Your task to perform on an android device: Open ESPN.com Image 0: 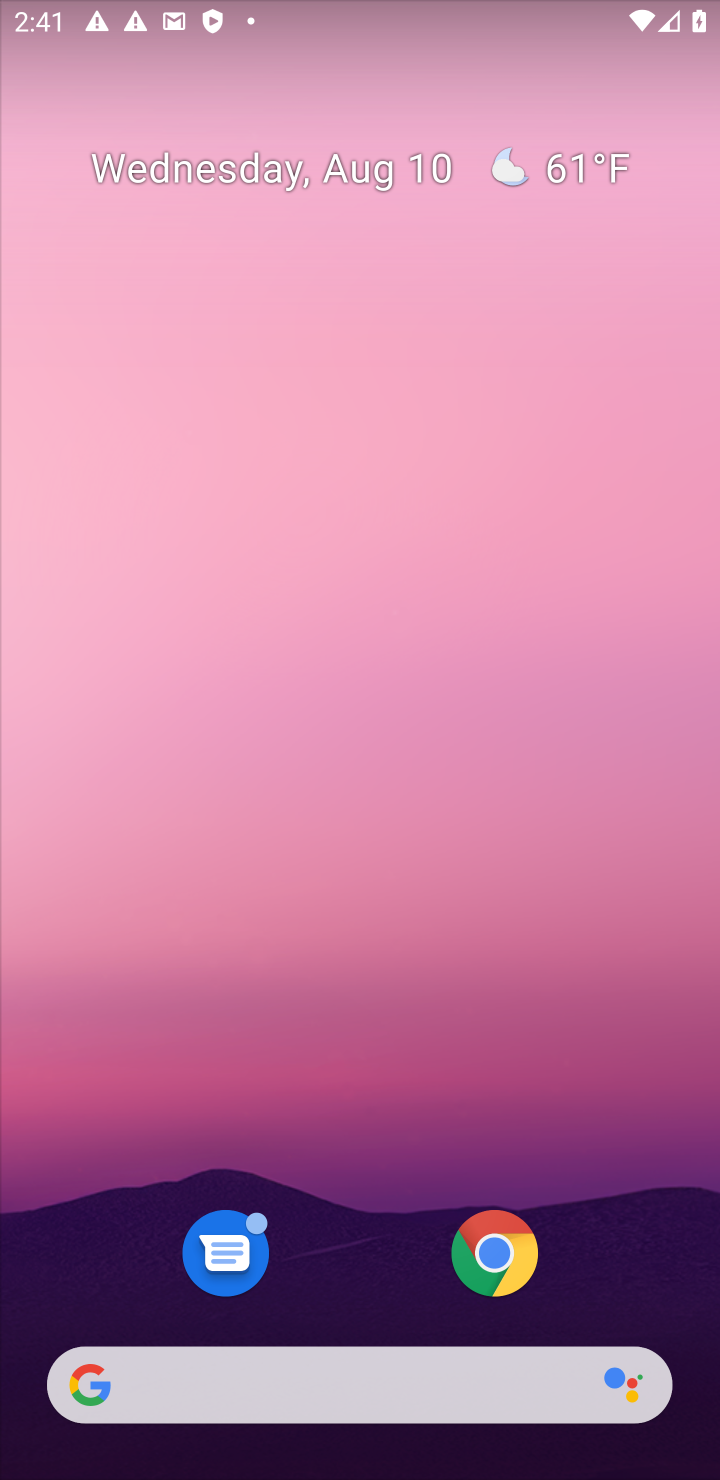
Step 0: click (348, 1394)
Your task to perform on an android device: Open ESPN.com Image 1: 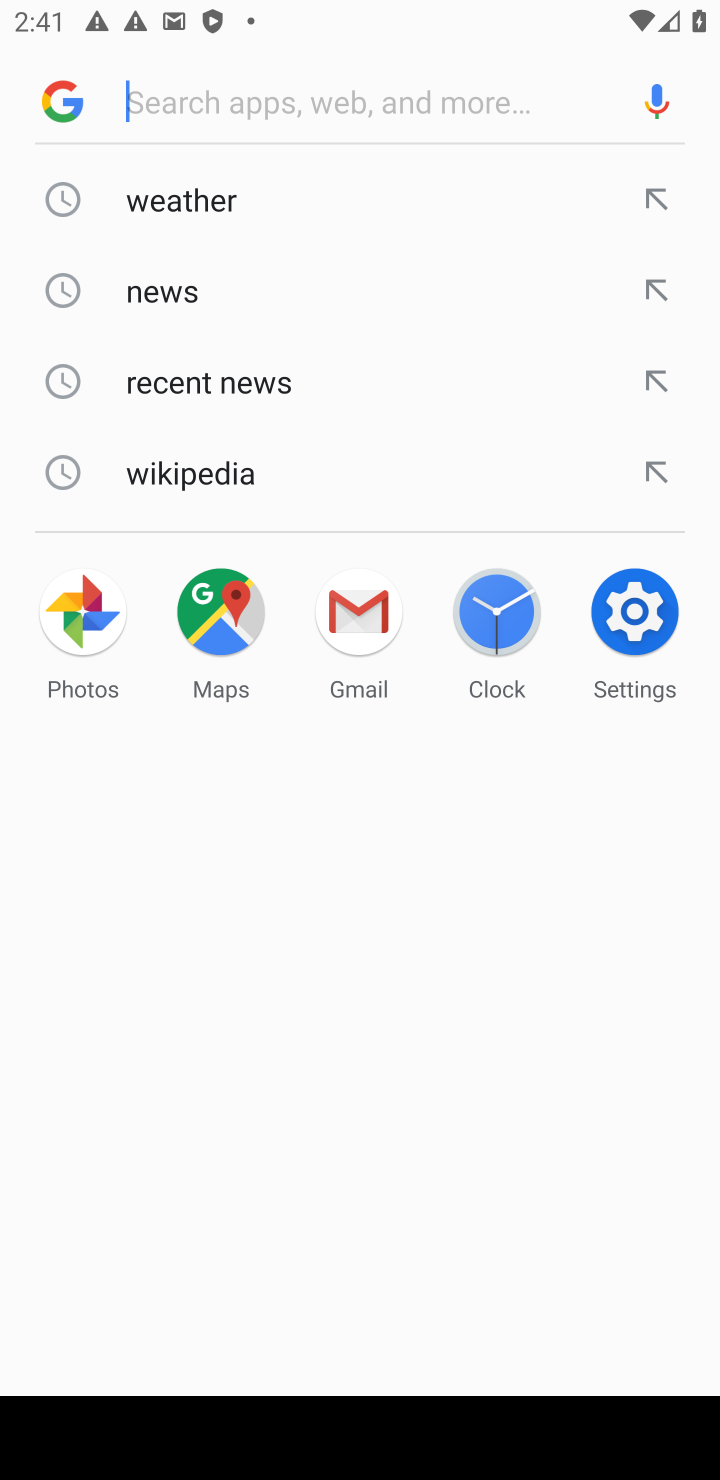
Step 1: type "ESPN.com"
Your task to perform on an android device: Open ESPN.com Image 2: 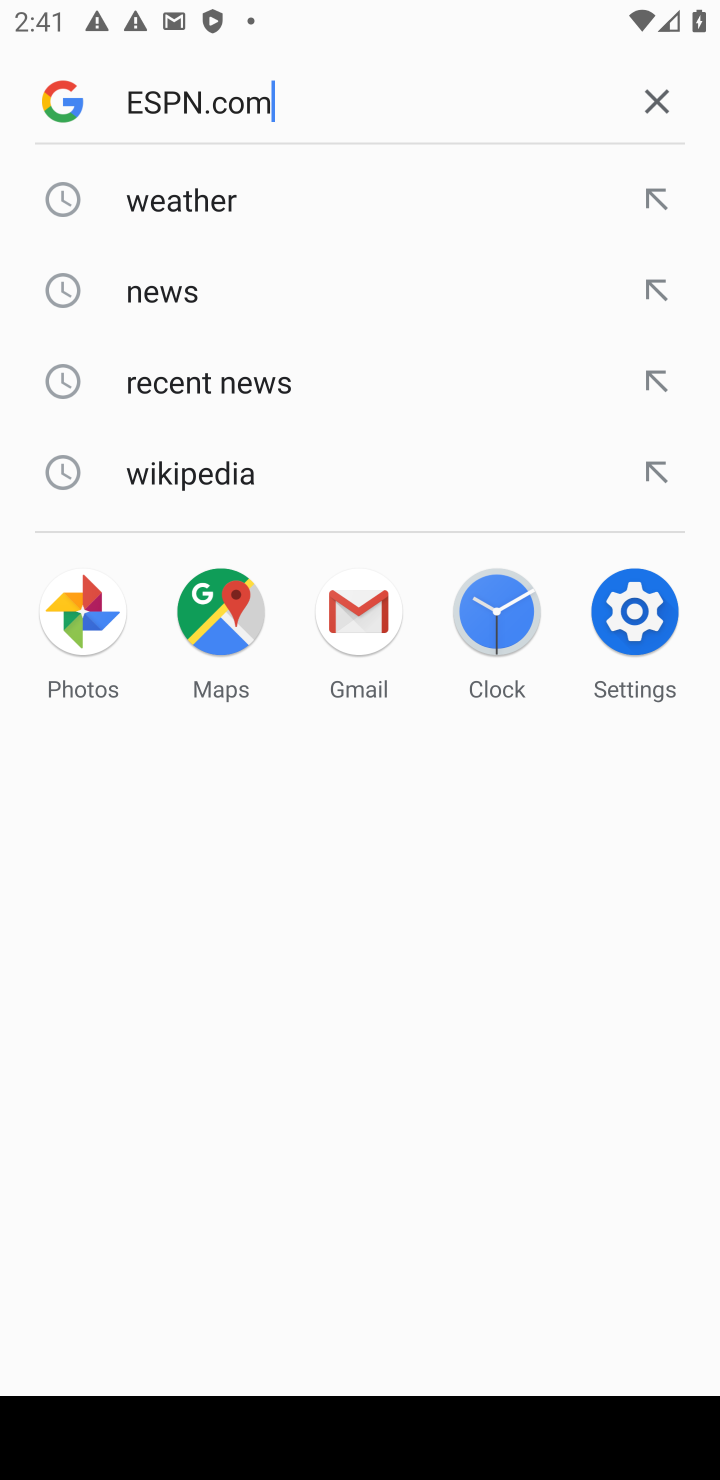
Step 2: task complete